Your task to perform on an android device: clear all cookies in the chrome app Image 0: 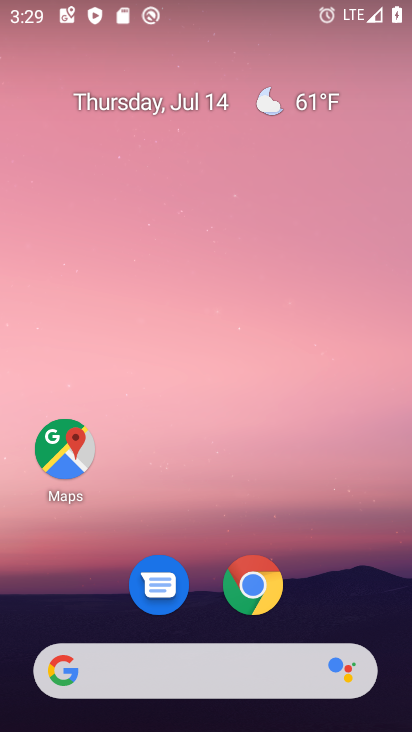
Step 0: click (258, 581)
Your task to perform on an android device: clear all cookies in the chrome app Image 1: 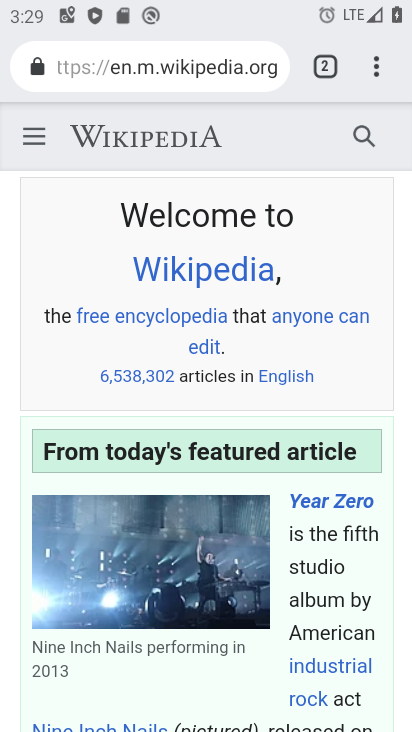
Step 1: click (373, 65)
Your task to perform on an android device: clear all cookies in the chrome app Image 2: 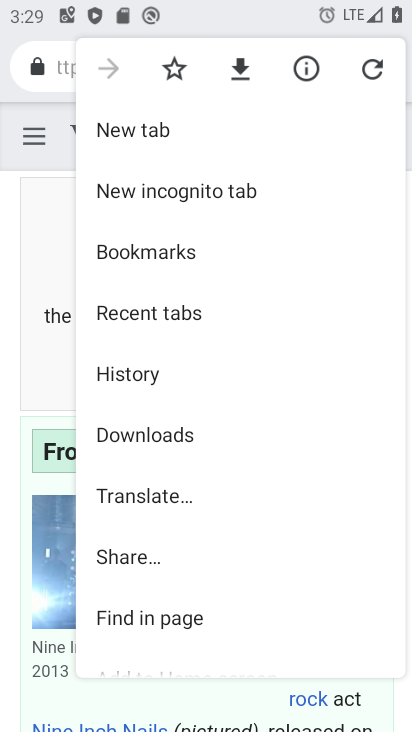
Step 2: click (149, 369)
Your task to perform on an android device: clear all cookies in the chrome app Image 3: 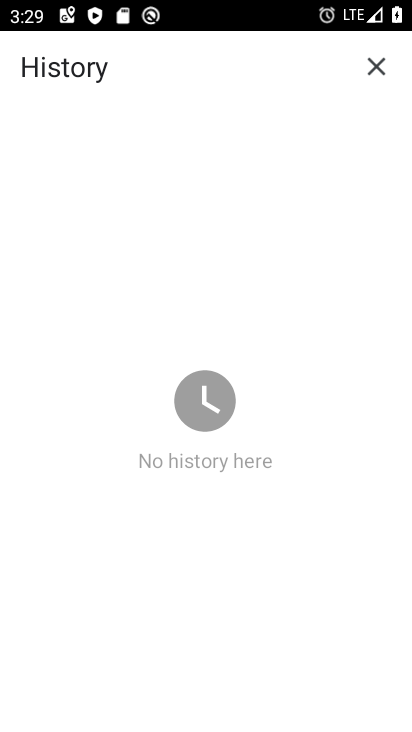
Step 3: click (381, 62)
Your task to perform on an android device: clear all cookies in the chrome app Image 4: 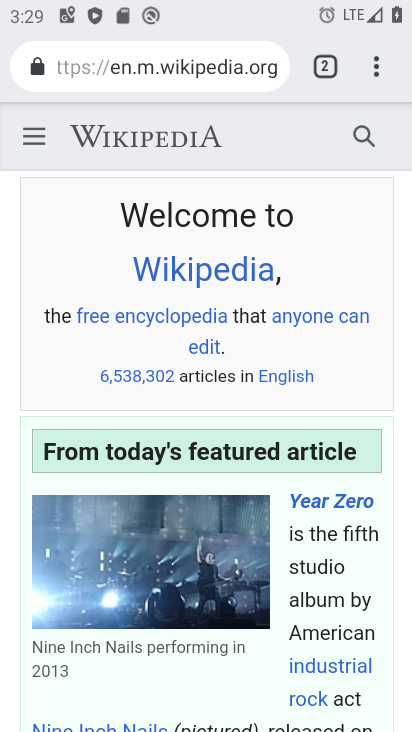
Step 4: click (377, 61)
Your task to perform on an android device: clear all cookies in the chrome app Image 5: 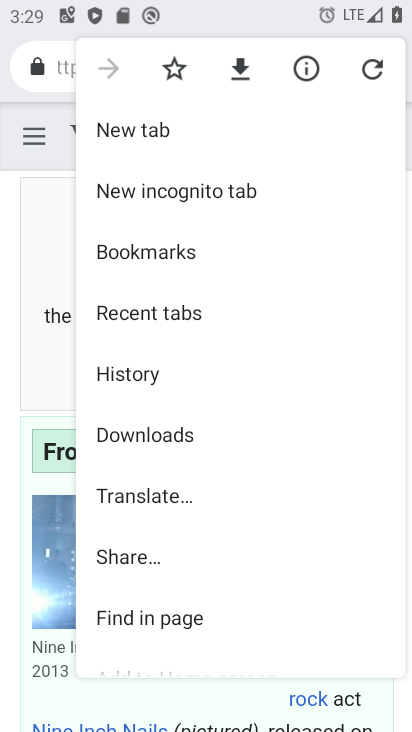
Step 5: drag from (252, 608) to (251, 174)
Your task to perform on an android device: clear all cookies in the chrome app Image 6: 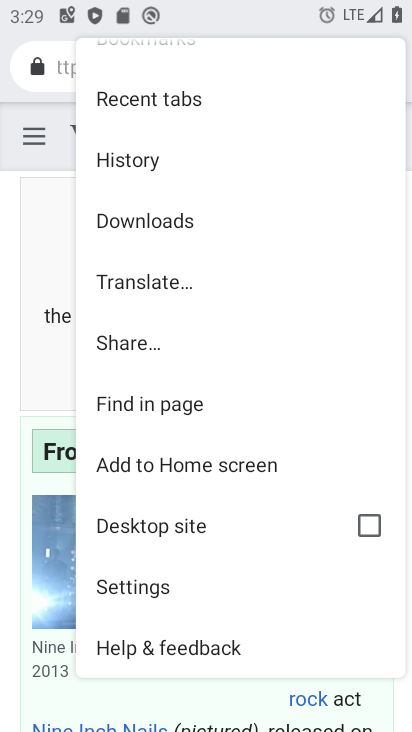
Step 6: click (132, 588)
Your task to perform on an android device: clear all cookies in the chrome app Image 7: 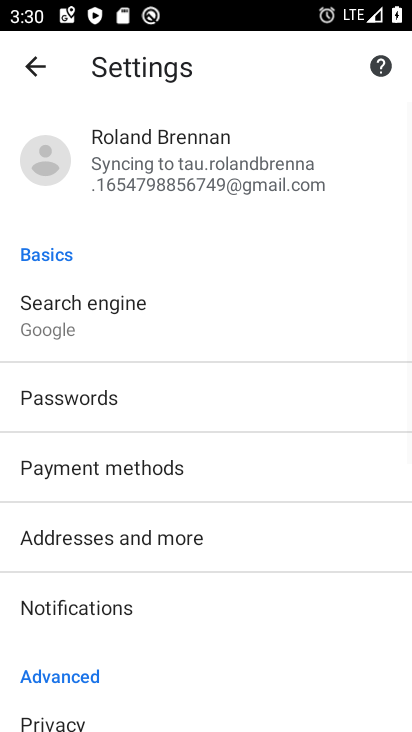
Step 7: drag from (240, 579) to (282, 224)
Your task to perform on an android device: clear all cookies in the chrome app Image 8: 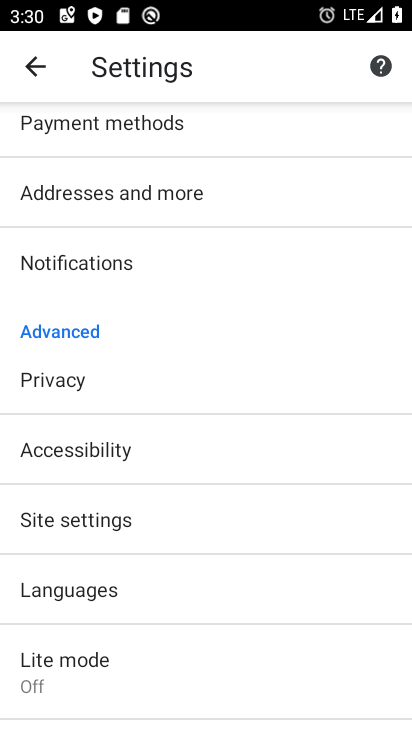
Step 8: click (113, 380)
Your task to perform on an android device: clear all cookies in the chrome app Image 9: 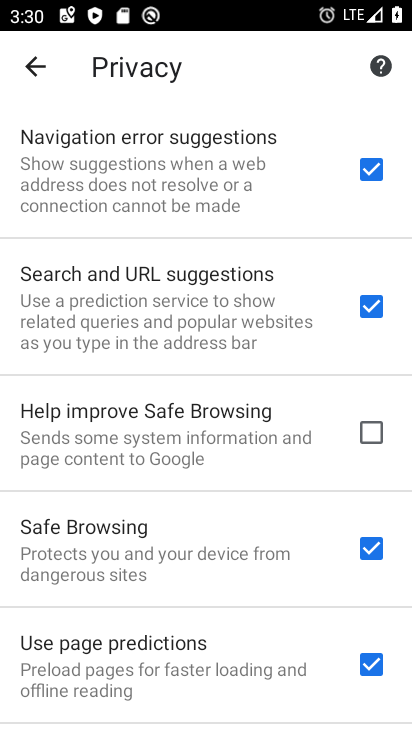
Step 9: drag from (241, 513) to (247, 185)
Your task to perform on an android device: clear all cookies in the chrome app Image 10: 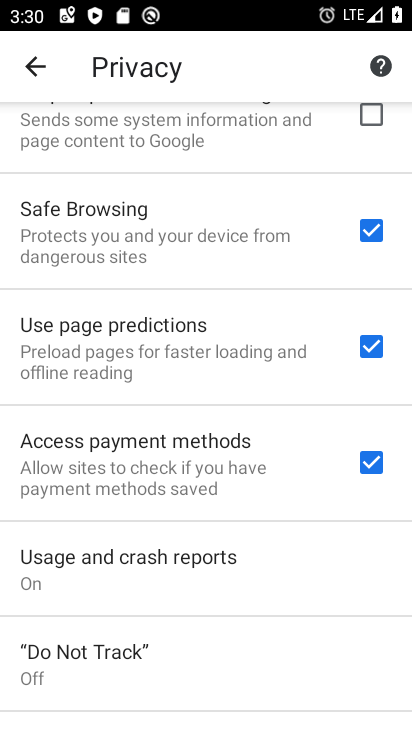
Step 10: drag from (214, 574) to (196, 247)
Your task to perform on an android device: clear all cookies in the chrome app Image 11: 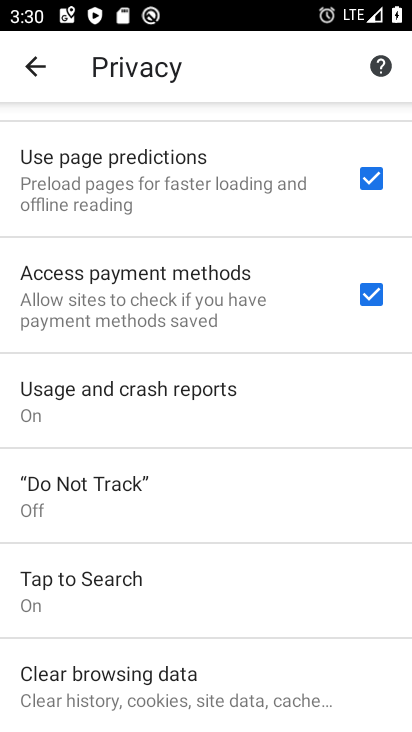
Step 11: drag from (201, 518) to (191, 420)
Your task to perform on an android device: clear all cookies in the chrome app Image 12: 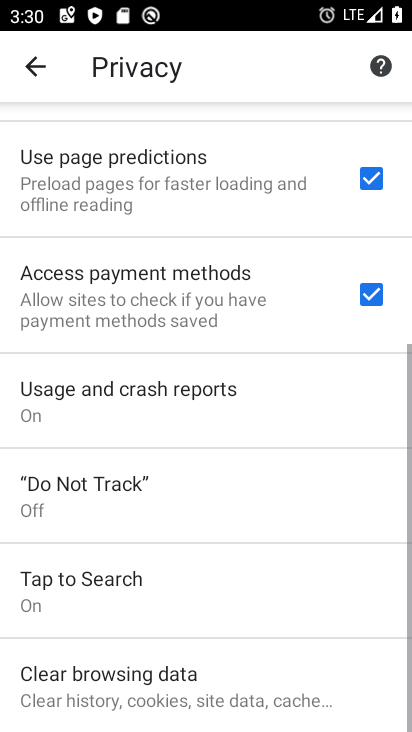
Step 12: click (162, 687)
Your task to perform on an android device: clear all cookies in the chrome app Image 13: 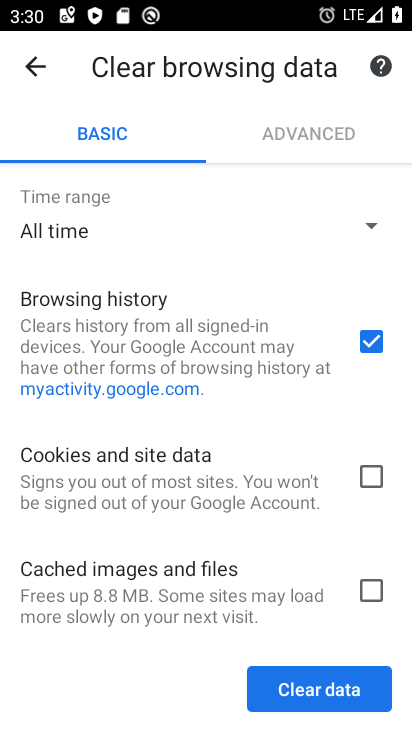
Step 13: click (368, 335)
Your task to perform on an android device: clear all cookies in the chrome app Image 14: 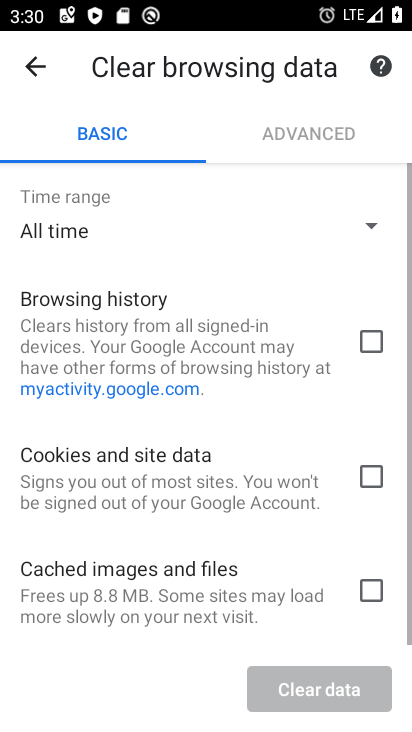
Step 14: click (373, 479)
Your task to perform on an android device: clear all cookies in the chrome app Image 15: 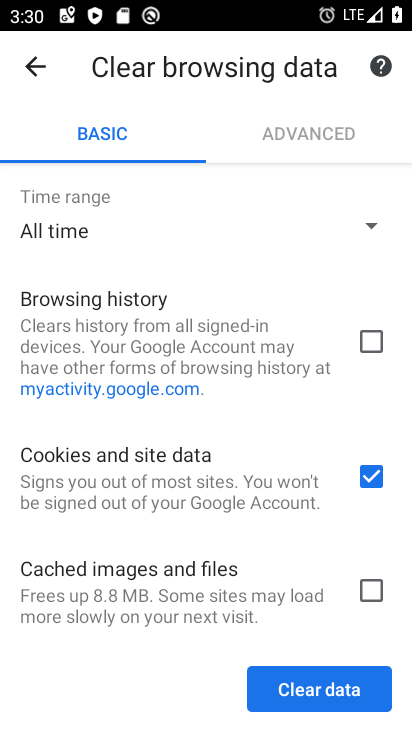
Step 15: click (349, 691)
Your task to perform on an android device: clear all cookies in the chrome app Image 16: 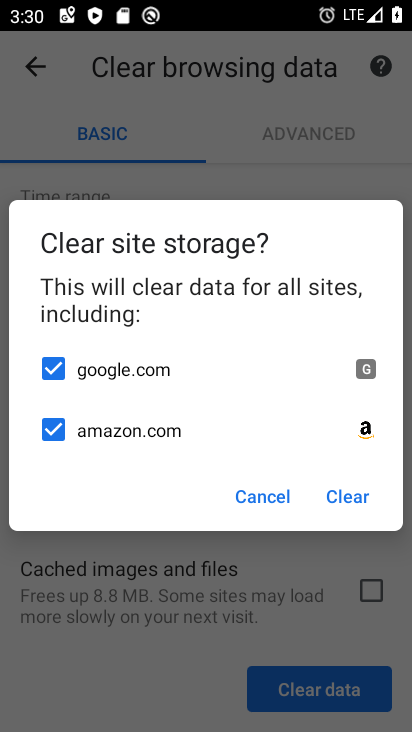
Step 16: click (356, 494)
Your task to perform on an android device: clear all cookies in the chrome app Image 17: 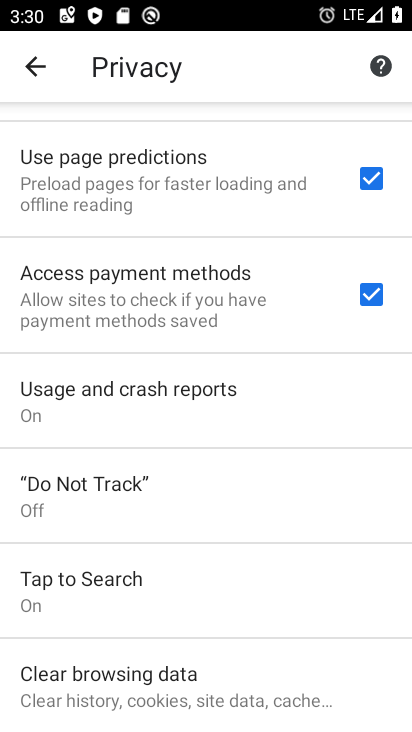
Step 17: task complete